Your task to perform on an android device: Is it going to rain tomorrow? Image 0: 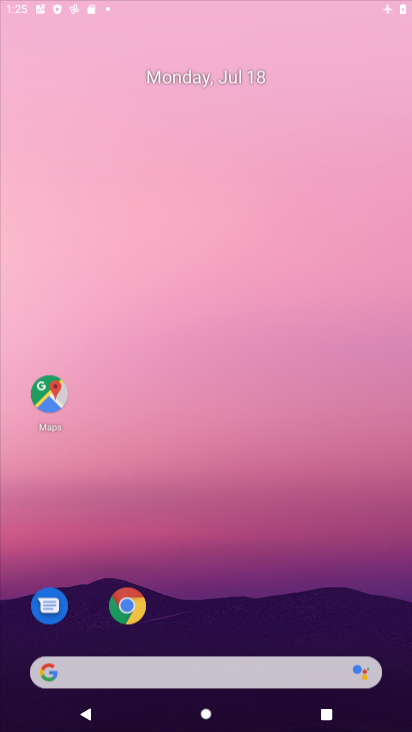
Step 0: drag from (358, 631) to (237, 83)
Your task to perform on an android device: Is it going to rain tomorrow? Image 1: 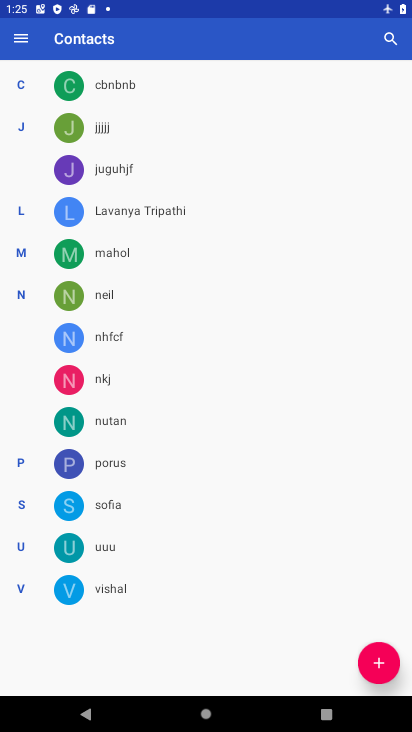
Step 1: press home button
Your task to perform on an android device: Is it going to rain tomorrow? Image 2: 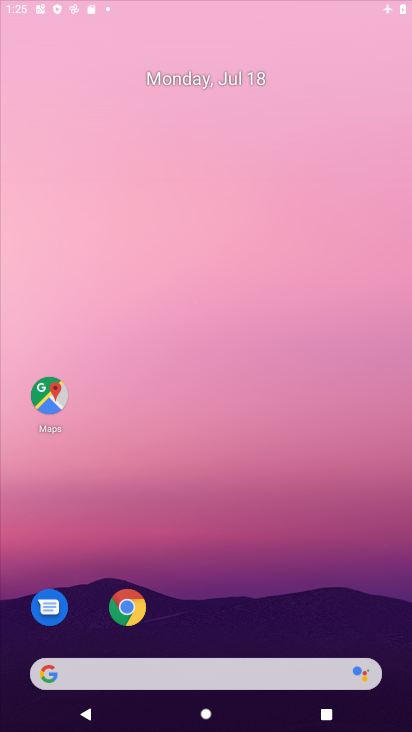
Step 2: drag from (333, 666) to (236, 93)
Your task to perform on an android device: Is it going to rain tomorrow? Image 3: 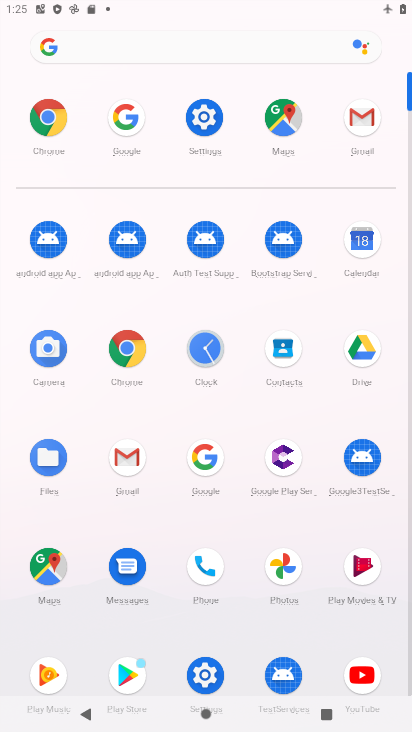
Step 3: click (214, 464)
Your task to perform on an android device: Is it going to rain tomorrow? Image 4: 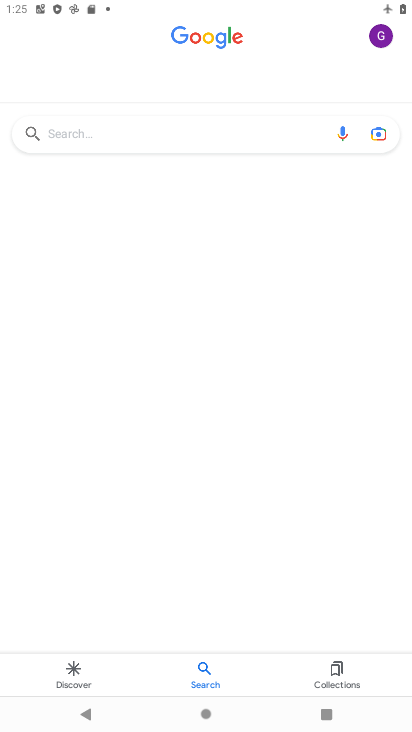
Step 4: type "Is it going to rain tomorrow?"
Your task to perform on an android device: Is it going to rain tomorrow? Image 5: 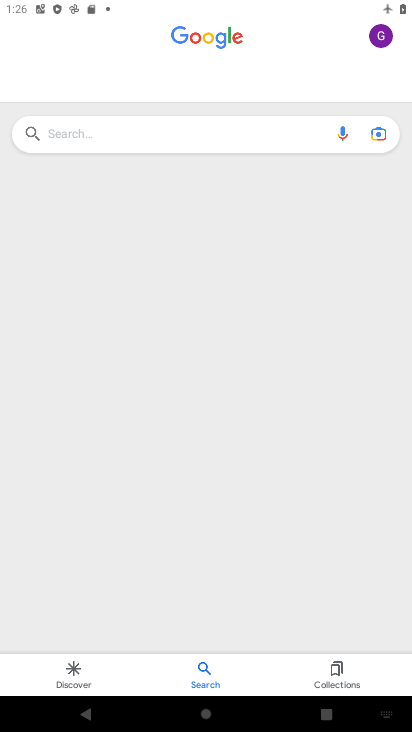
Step 5: task complete